Your task to perform on an android device: Open Google Maps Image 0: 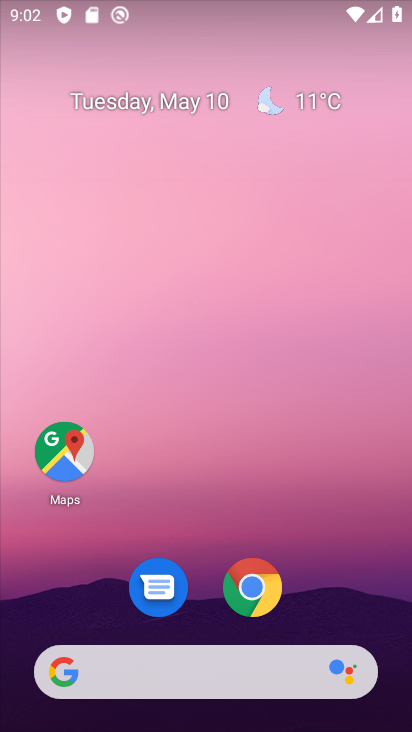
Step 0: click (84, 463)
Your task to perform on an android device: Open Google Maps Image 1: 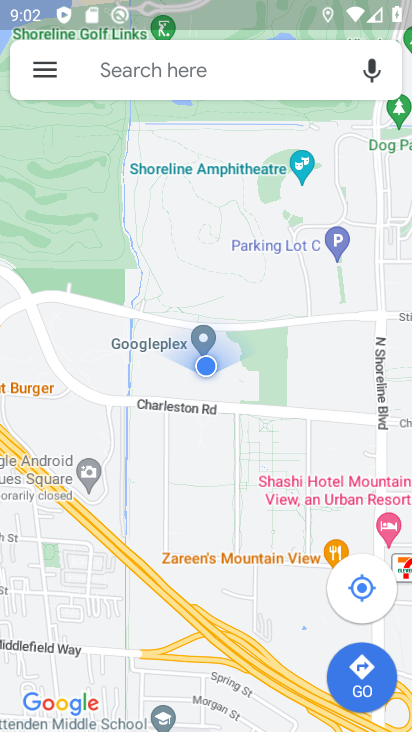
Step 1: task complete